Your task to perform on an android device: Open CNN.com Image 0: 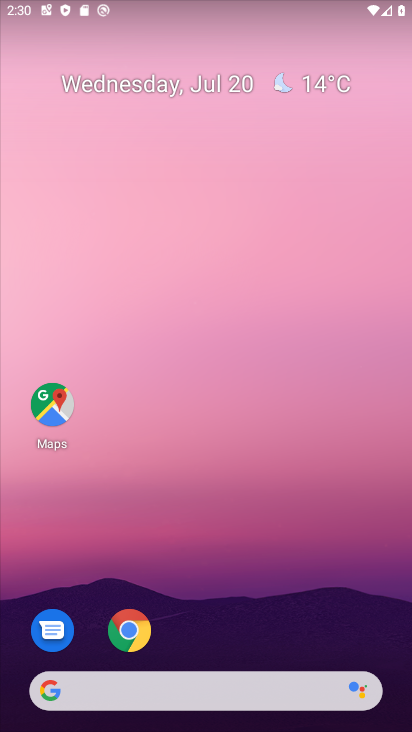
Step 0: click (194, 695)
Your task to perform on an android device: Open CNN.com Image 1: 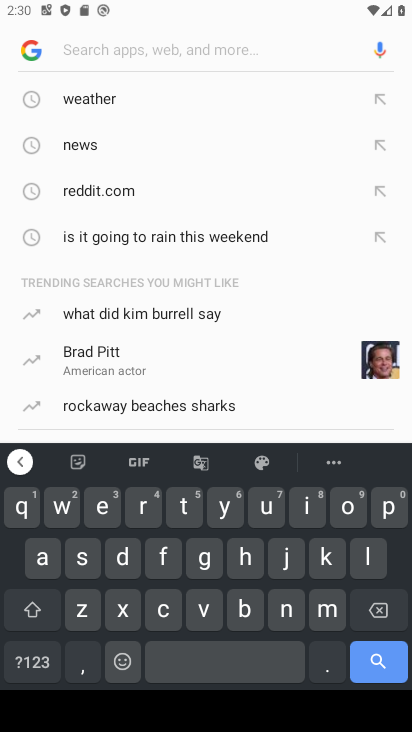
Step 1: click (162, 607)
Your task to perform on an android device: Open CNN.com Image 2: 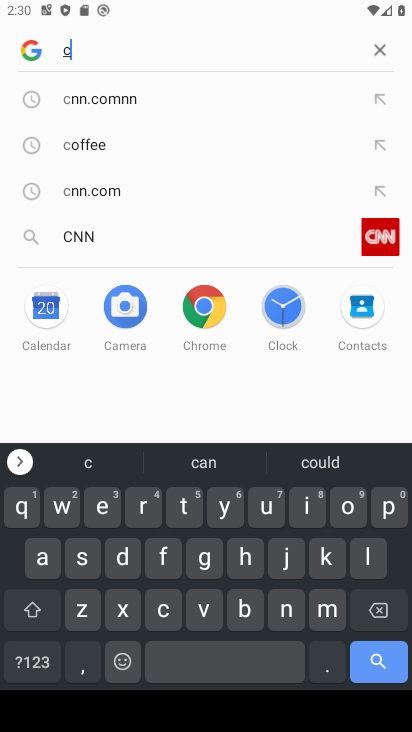
Step 2: click (89, 237)
Your task to perform on an android device: Open CNN.com Image 3: 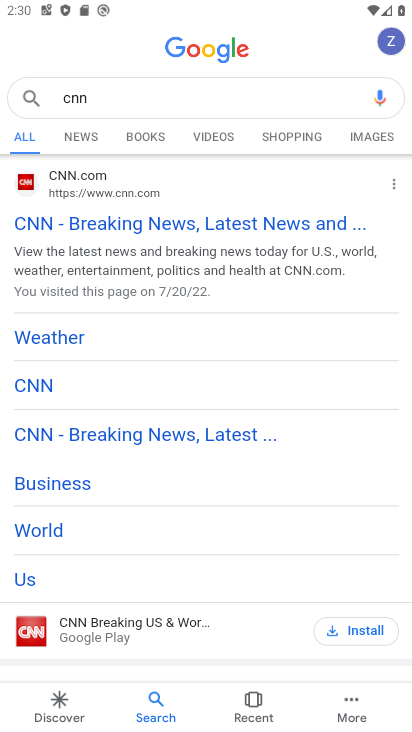
Step 3: click (82, 216)
Your task to perform on an android device: Open CNN.com Image 4: 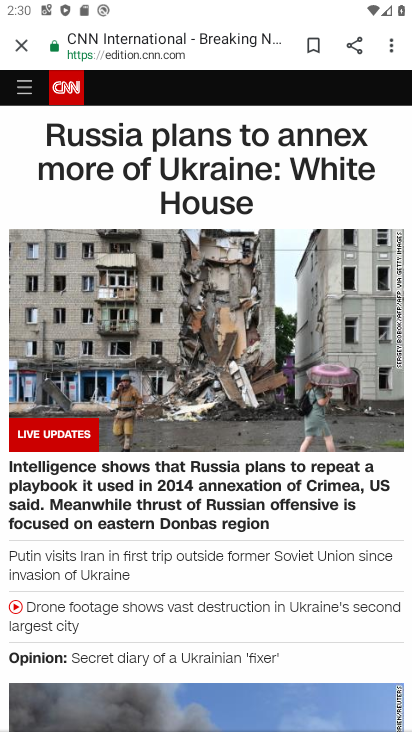
Step 4: task complete